Your task to perform on an android device: Open Amazon Image 0: 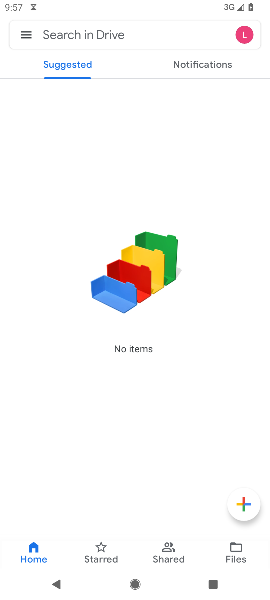
Step 0: press home button
Your task to perform on an android device: Open Amazon Image 1: 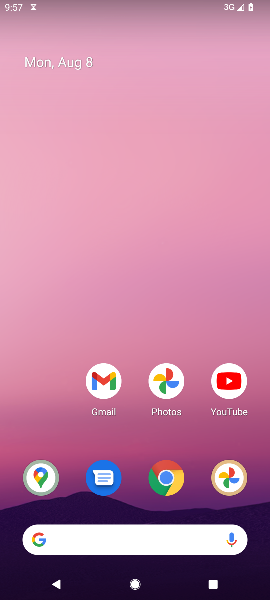
Step 1: click (160, 479)
Your task to perform on an android device: Open Amazon Image 2: 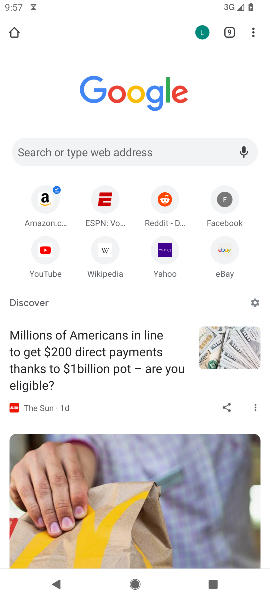
Step 2: click (47, 201)
Your task to perform on an android device: Open Amazon Image 3: 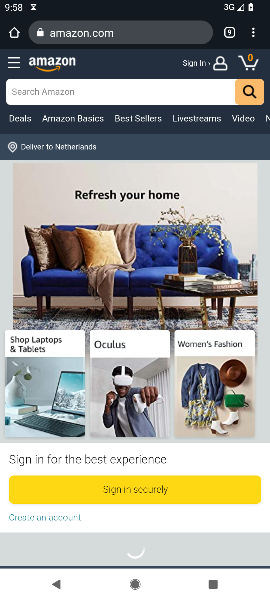
Step 3: task complete